Your task to perform on an android device: See recent photos Image 0: 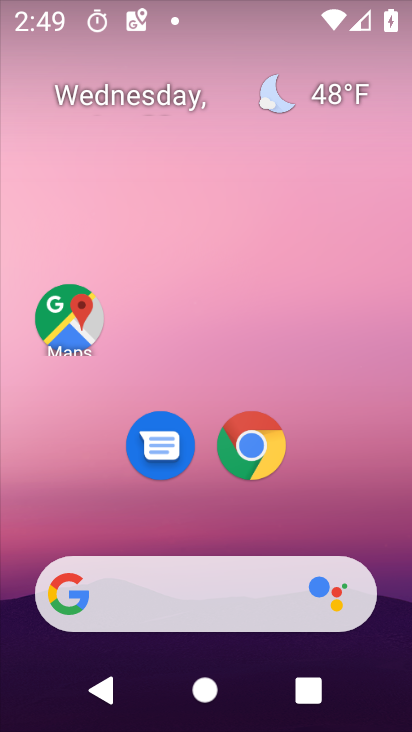
Step 0: drag from (379, 476) to (332, 36)
Your task to perform on an android device: See recent photos Image 1: 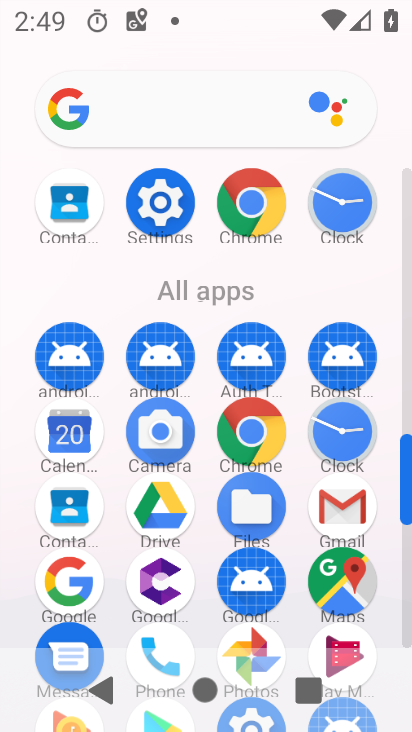
Step 1: click (254, 629)
Your task to perform on an android device: See recent photos Image 2: 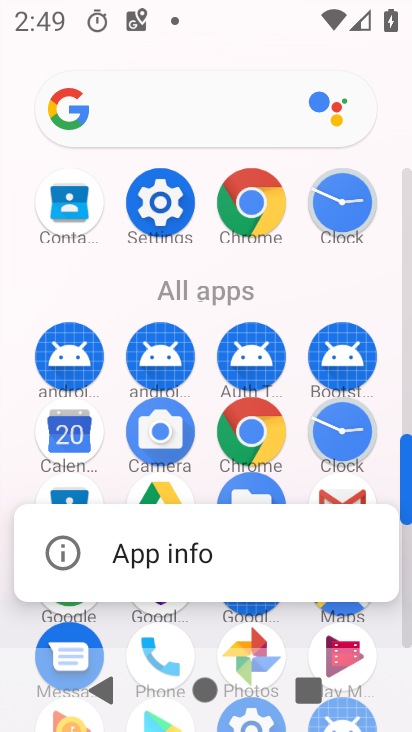
Step 2: click (252, 641)
Your task to perform on an android device: See recent photos Image 3: 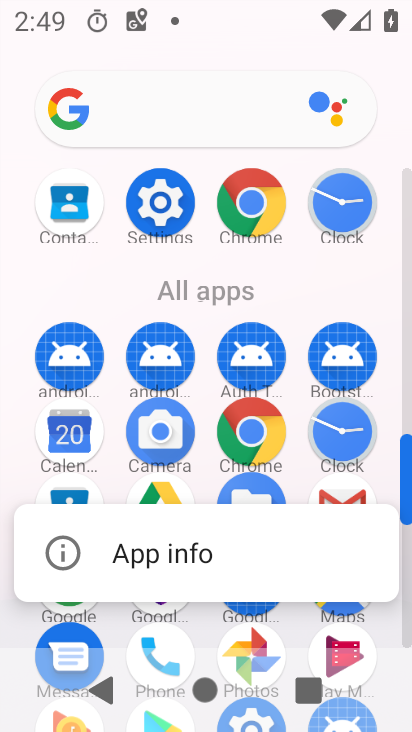
Step 3: click (252, 641)
Your task to perform on an android device: See recent photos Image 4: 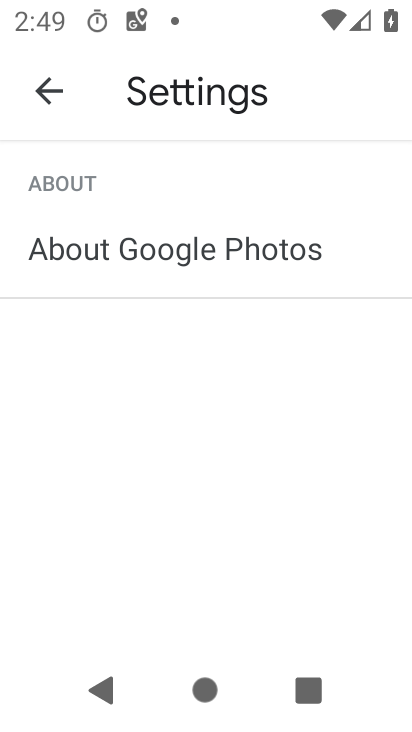
Step 4: click (53, 101)
Your task to perform on an android device: See recent photos Image 5: 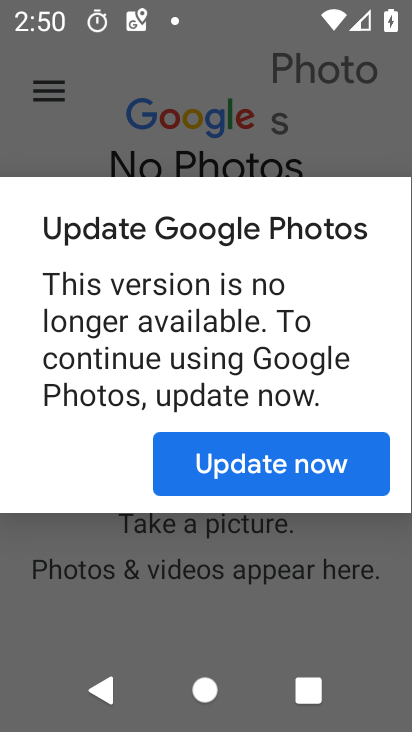
Step 5: click (244, 465)
Your task to perform on an android device: See recent photos Image 6: 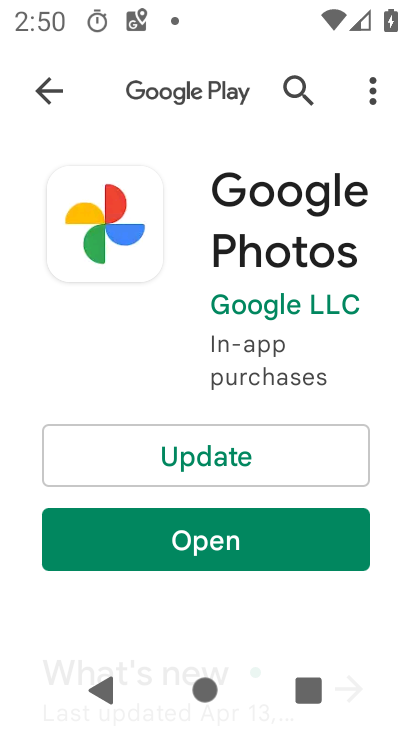
Step 6: click (235, 532)
Your task to perform on an android device: See recent photos Image 7: 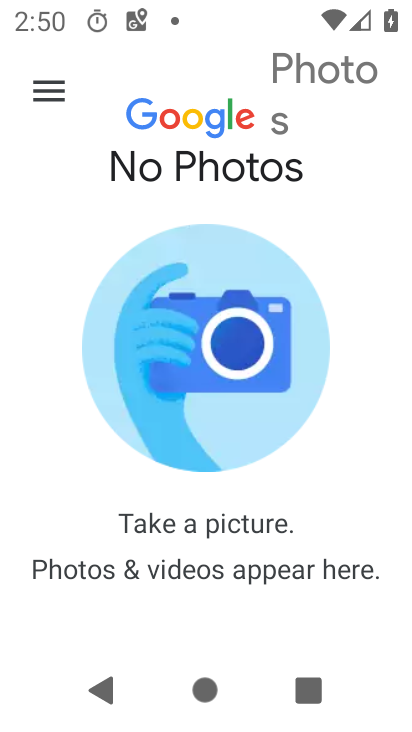
Step 7: click (43, 88)
Your task to perform on an android device: See recent photos Image 8: 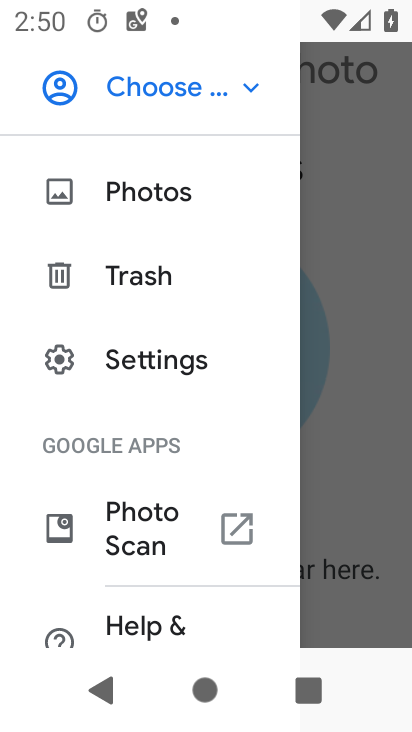
Step 8: task complete